Your task to perform on an android device: toggle sleep mode Image 0: 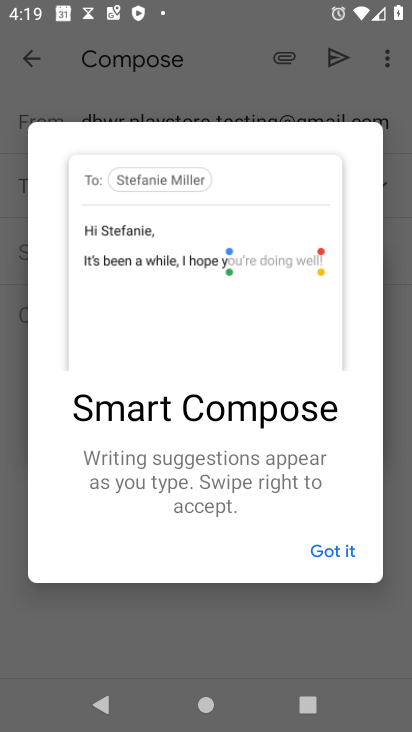
Step 0: press home button
Your task to perform on an android device: toggle sleep mode Image 1: 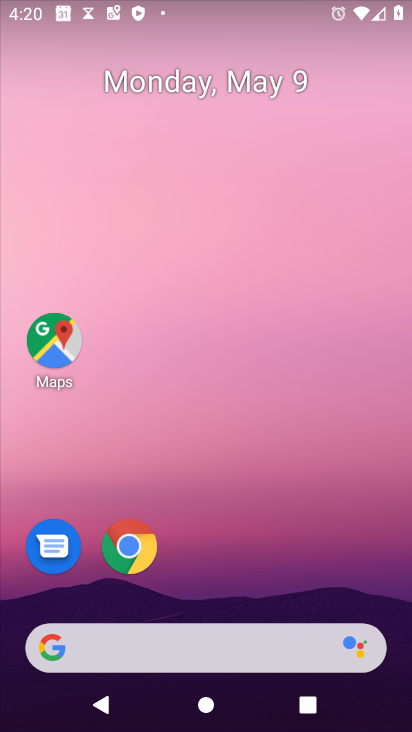
Step 1: drag from (301, 494) to (281, 77)
Your task to perform on an android device: toggle sleep mode Image 2: 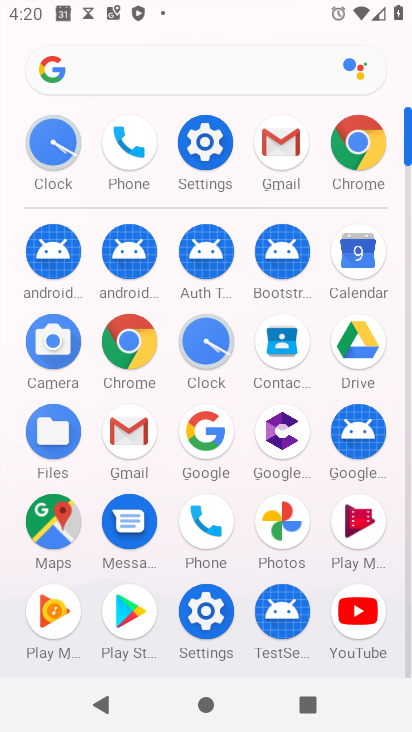
Step 2: click (191, 147)
Your task to perform on an android device: toggle sleep mode Image 3: 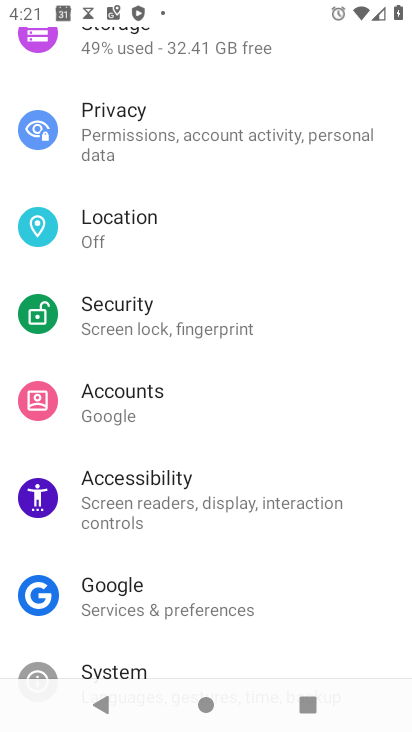
Step 3: drag from (304, 484) to (301, 184)
Your task to perform on an android device: toggle sleep mode Image 4: 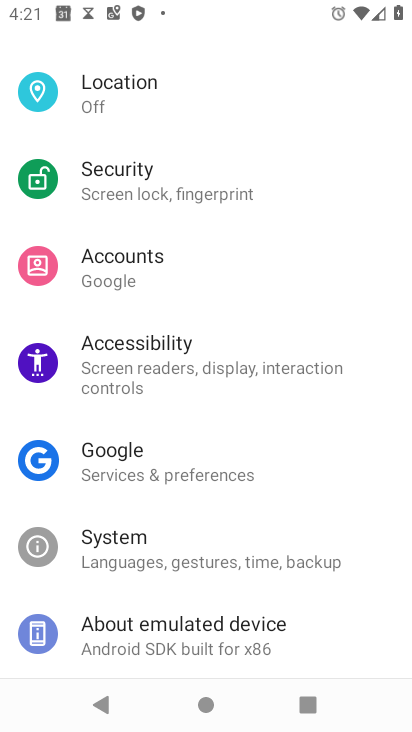
Step 4: drag from (170, 179) to (212, 541)
Your task to perform on an android device: toggle sleep mode Image 5: 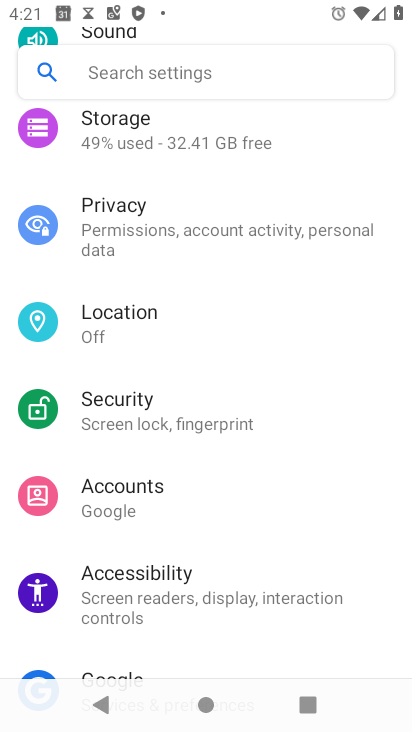
Step 5: drag from (132, 247) to (209, 566)
Your task to perform on an android device: toggle sleep mode Image 6: 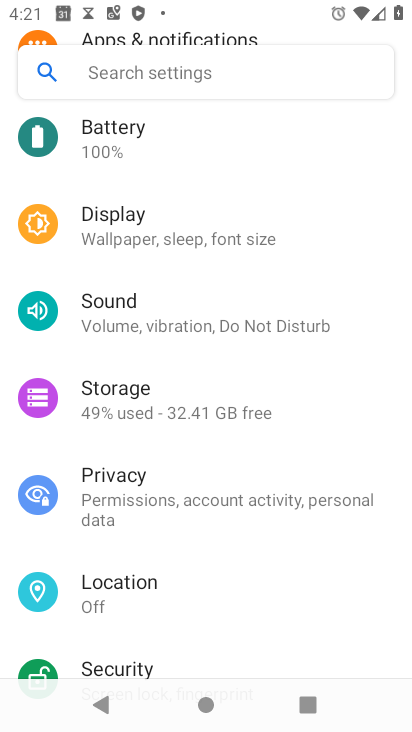
Step 6: click (135, 233)
Your task to perform on an android device: toggle sleep mode Image 7: 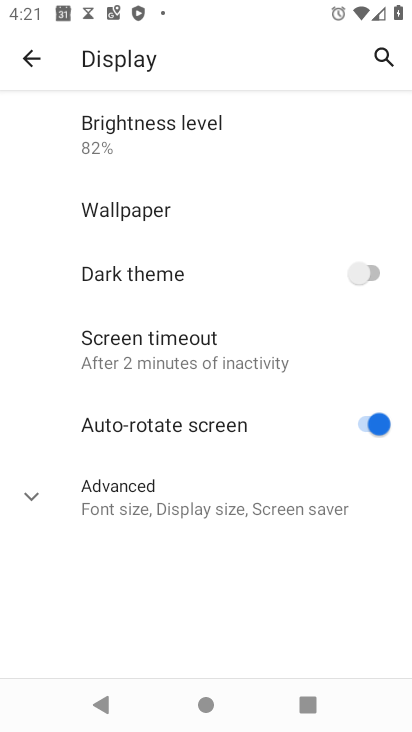
Step 7: click (120, 358)
Your task to perform on an android device: toggle sleep mode Image 8: 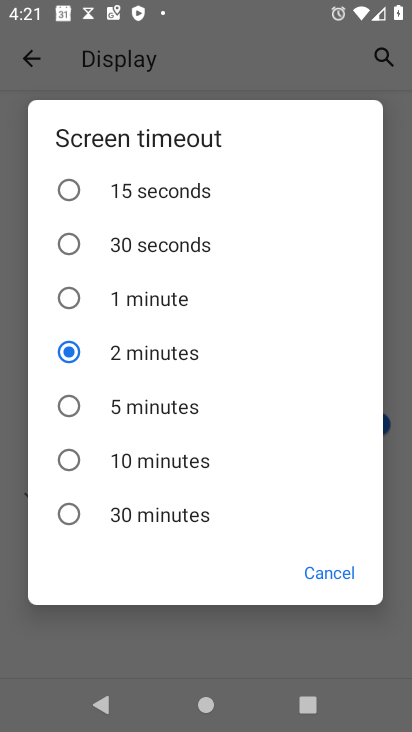
Step 8: click (62, 422)
Your task to perform on an android device: toggle sleep mode Image 9: 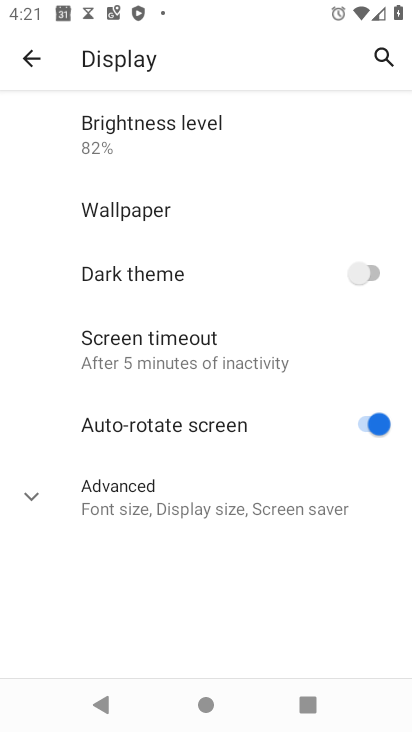
Step 9: task complete